Your task to perform on an android device: install app "NewsBreak: Local News & Alerts" Image 0: 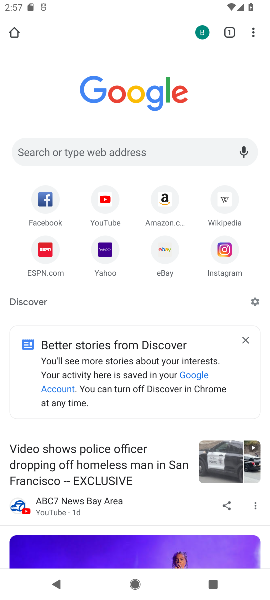
Step 0: press home button
Your task to perform on an android device: install app "NewsBreak: Local News & Alerts" Image 1: 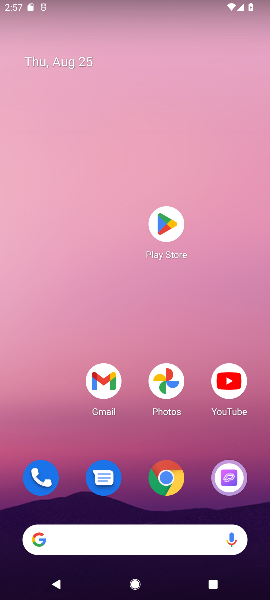
Step 1: click (168, 226)
Your task to perform on an android device: install app "NewsBreak: Local News & Alerts" Image 2: 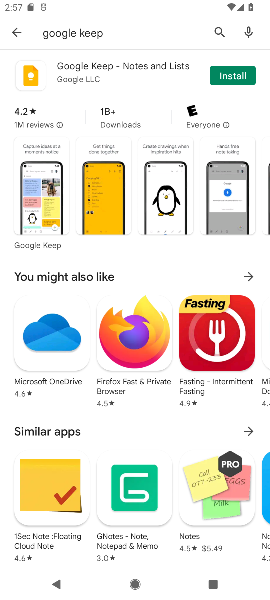
Step 2: click (217, 23)
Your task to perform on an android device: install app "NewsBreak: Local News & Alerts" Image 3: 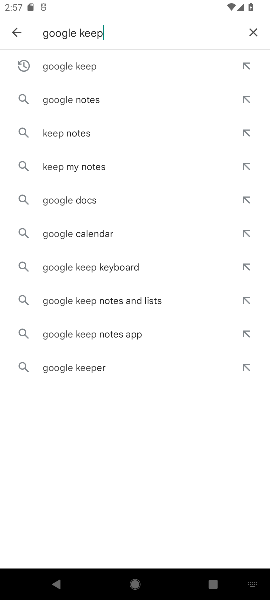
Step 3: click (259, 29)
Your task to perform on an android device: install app "NewsBreak: Local News & Alerts" Image 4: 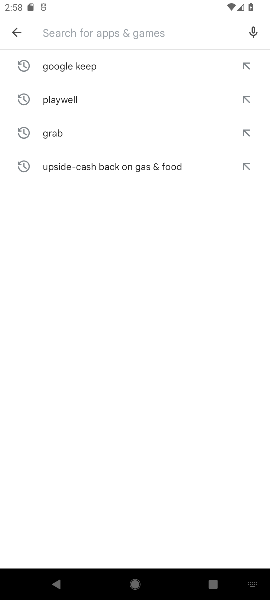
Step 4: type "NewsBreak: Local News & Alerts"
Your task to perform on an android device: install app "NewsBreak: Local News & Alerts" Image 5: 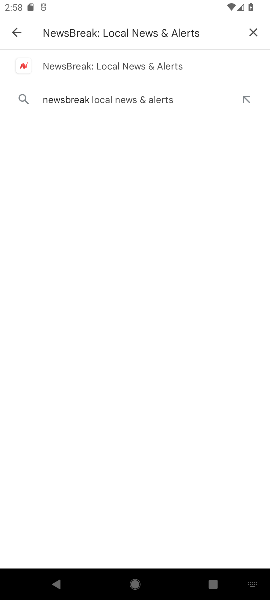
Step 5: click (132, 67)
Your task to perform on an android device: install app "NewsBreak: Local News & Alerts" Image 6: 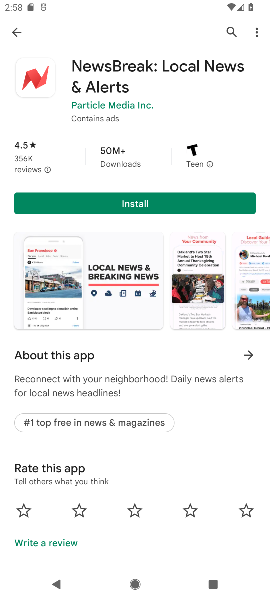
Step 6: click (131, 205)
Your task to perform on an android device: install app "NewsBreak: Local News & Alerts" Image 7: 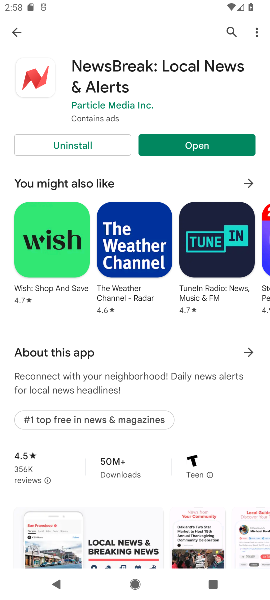
Step 7: task complete